Your task to perform on an android device: Open privacy settings Image 0: 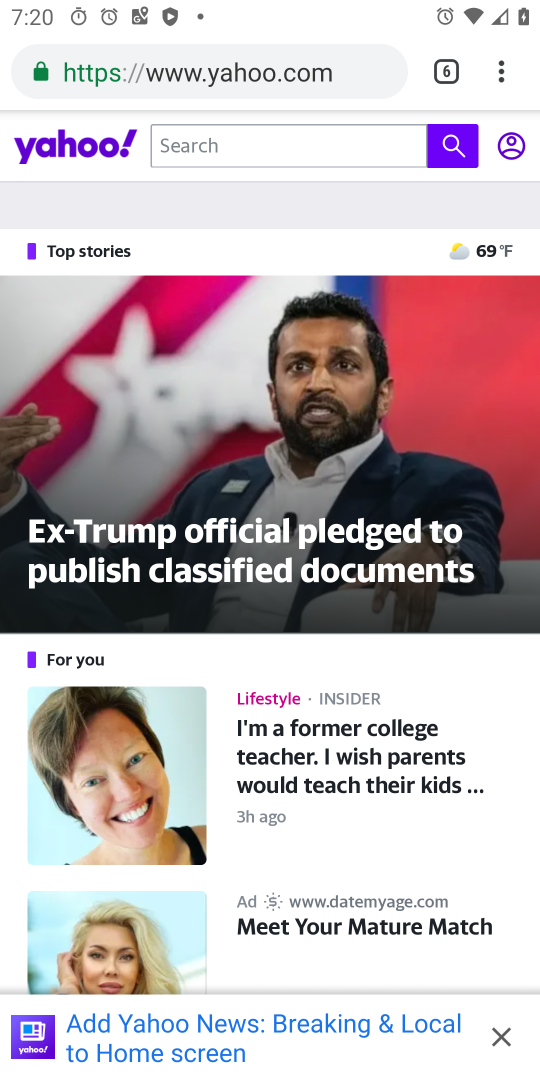
Step 0: press home button
Your task to perform on an android device: Open privacy settings Image 1: 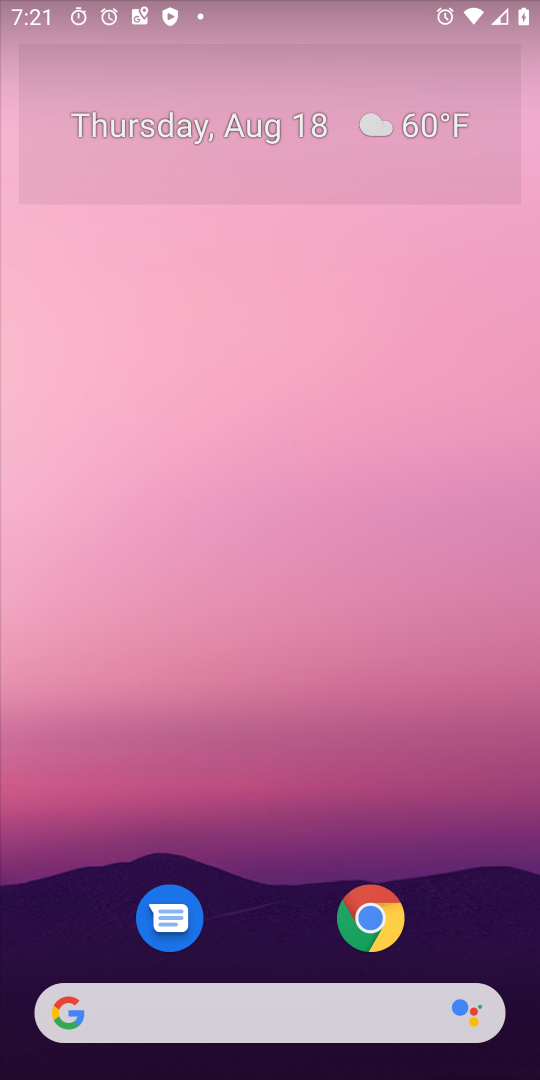
Step 1: drag from (277, 917) to (346, 13)
Your task to perform on an android device: Open privacy settings Image 2: 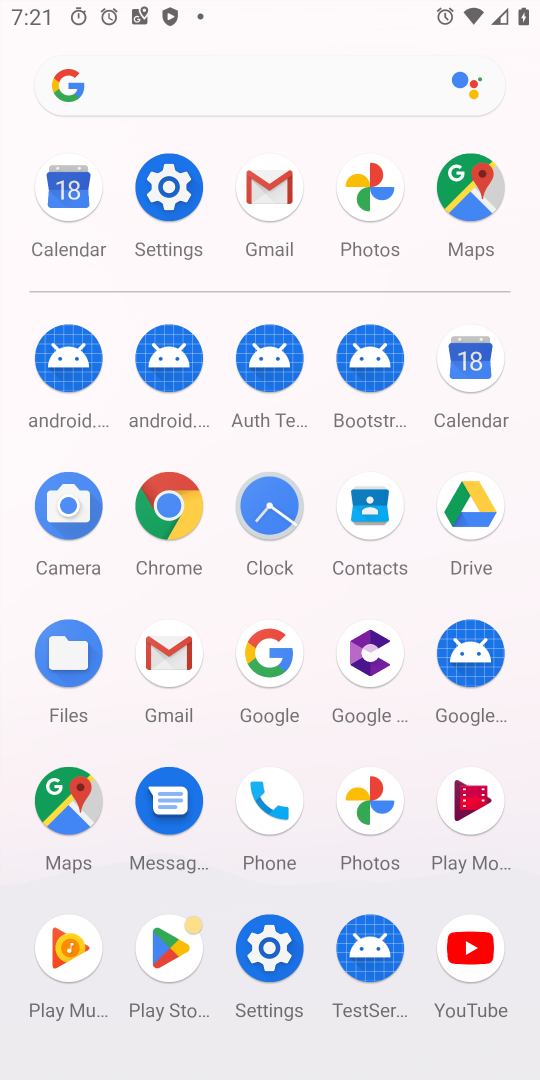
Step 2: click (160, 196)
Your task to perform on an android device: Open privacy settings Image 3: 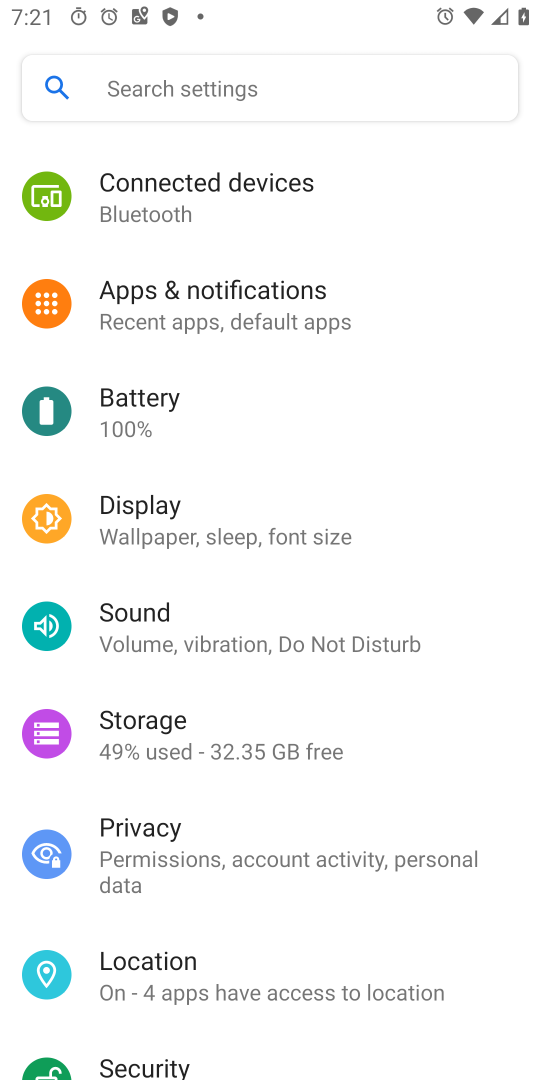
Step 3: click (153, 844)
Your task to perform on an android device: Open privacy settings Image 4: 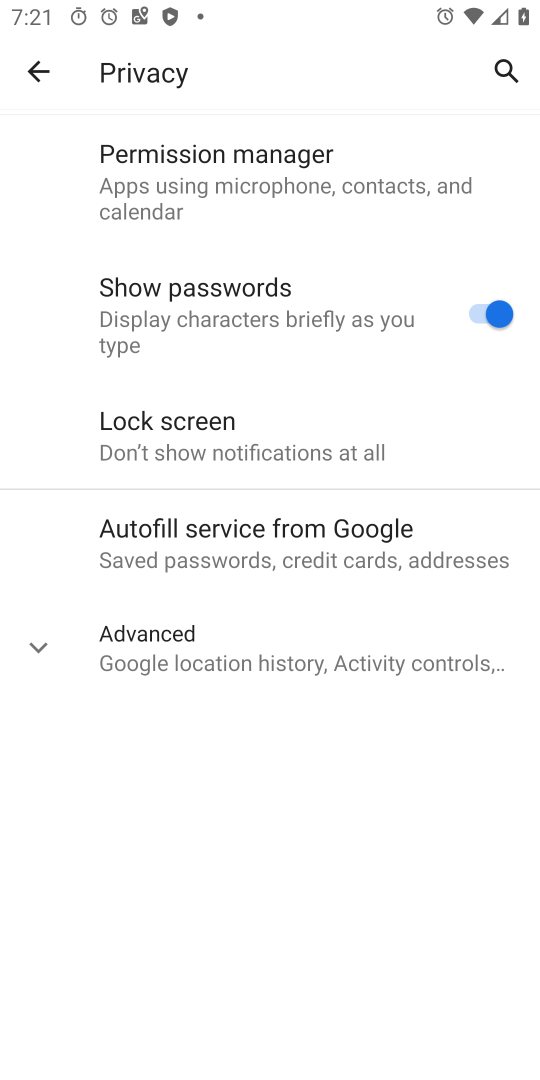
Step 4: task complete